Your task to perform on an android device: open a bookmark in the chrome app Image 0: 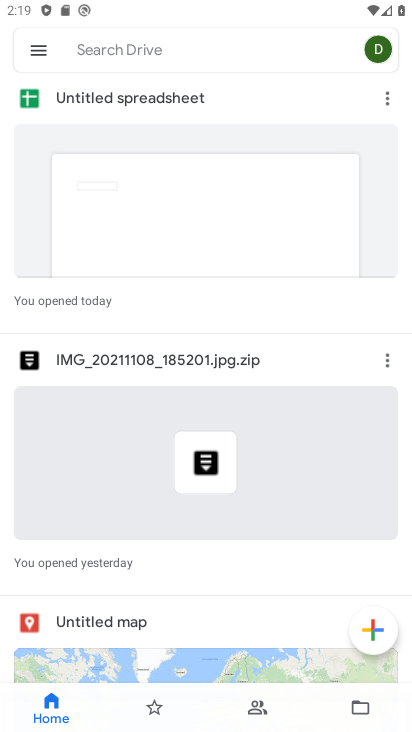
Step 0: press home button
Your task to perform on an android device: open a bookmark in the chrome app Image 1: 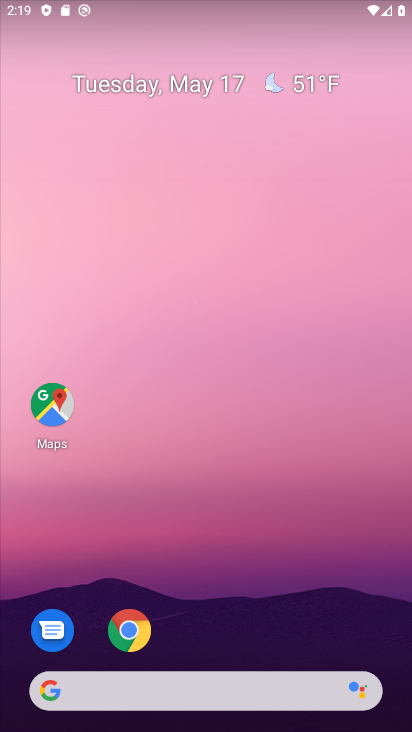
Step 1: click (330, 5)
Your task to perform on an android device: open a bookmark in the chrome app Image 2: 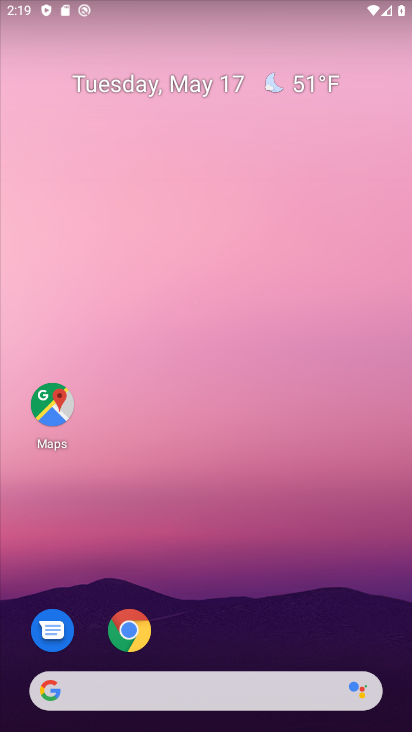
Step 2: click (132, 644)
Your task to perform on an android device: open a bookmark in the chrome app Image 3: 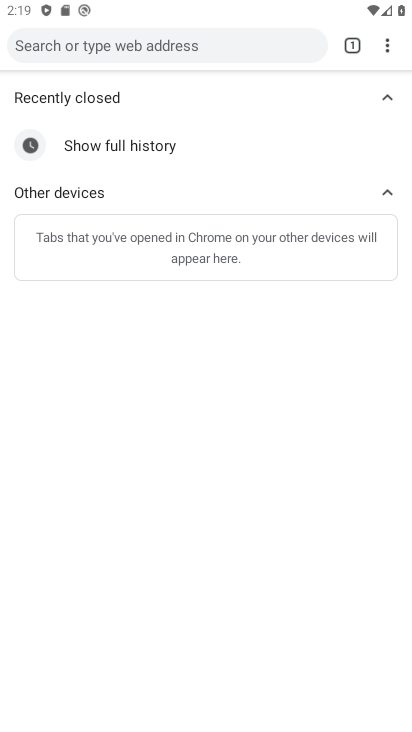
Step 3: press back button
Your task to perform on an android device: open a bookmark in the chrome app Image 4: 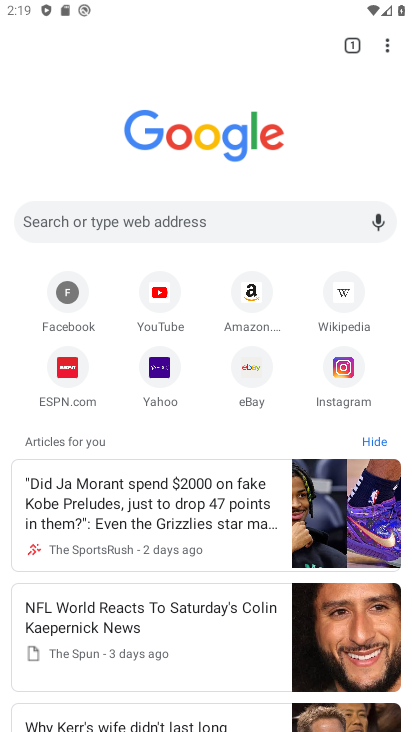
Step 4: click (203, 216)
Your task to perform on an android device: open a bookmark in the chrome app Image 5: 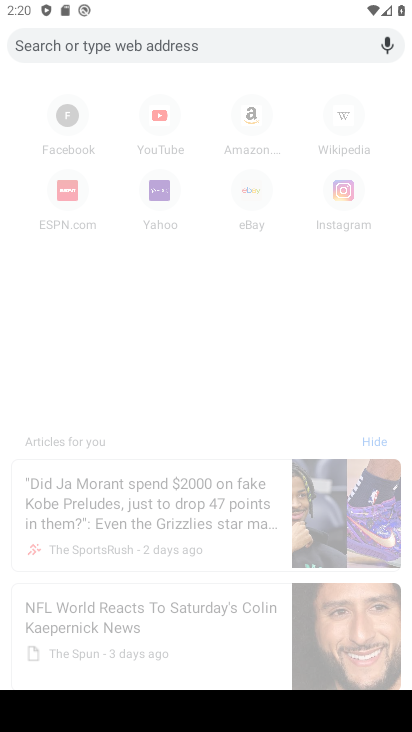
Step 5: press back button
Your task to perform on an android device: open a bookmark in the chrome app Image 6: 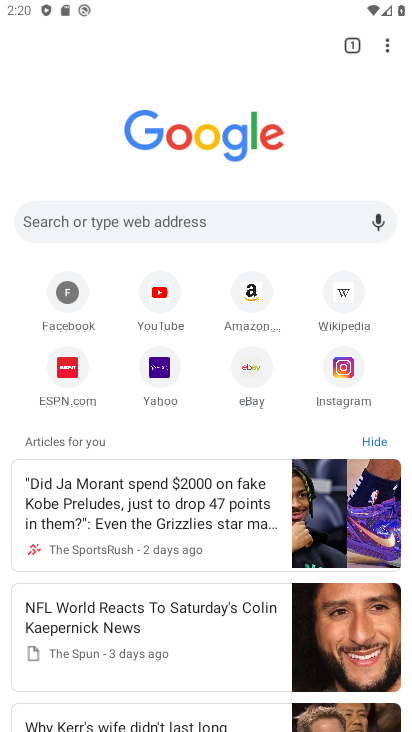
Step 6: click (387, 48)
Your task to perform on an android device: open a bookmark in the chrome app Image 7: 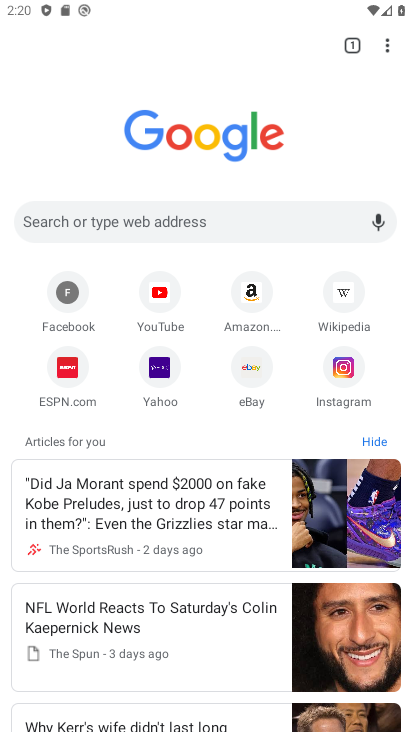
Step 7: click (384, 48)
Your task to perform on an android device: open a bookmark in the chrome app Image 8: 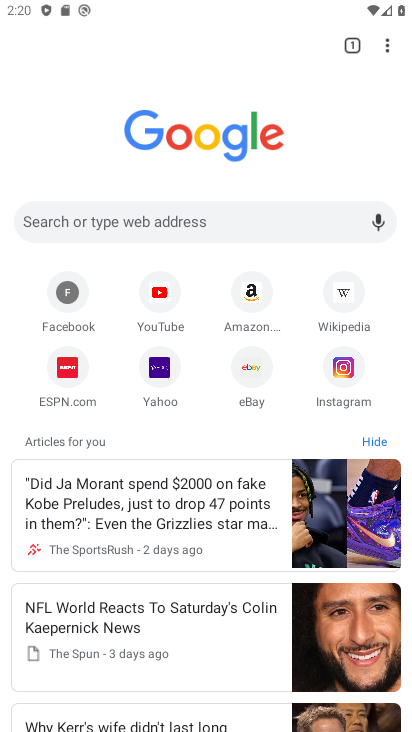
Step 8: click (391, 41)
Your task to perform on an android device: open a bookmark in the chrome app Image 9: 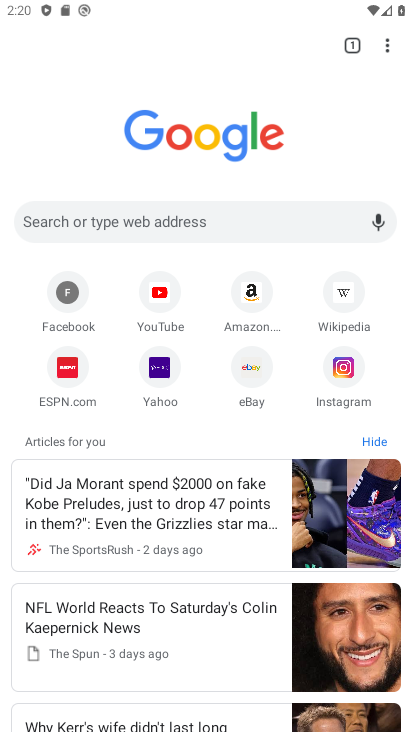
Step 9: click (384, 47)
Your task to perform on an android device: open a bookmark in the chrome app Image 10: 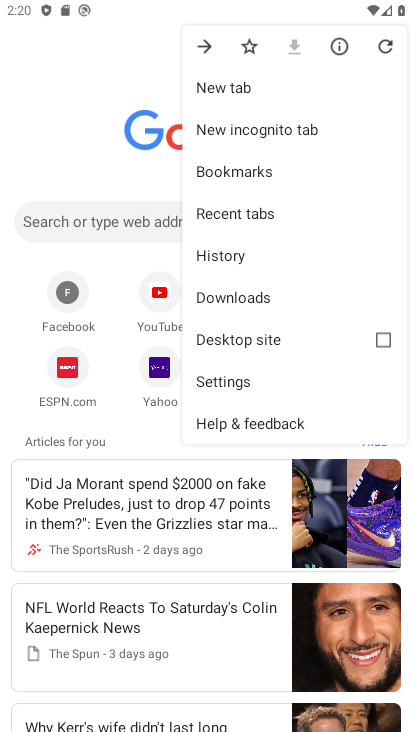
Step 10: click (245, 173)
Your task to perform on an android device: open a bookmark in the chrome app Image 11: 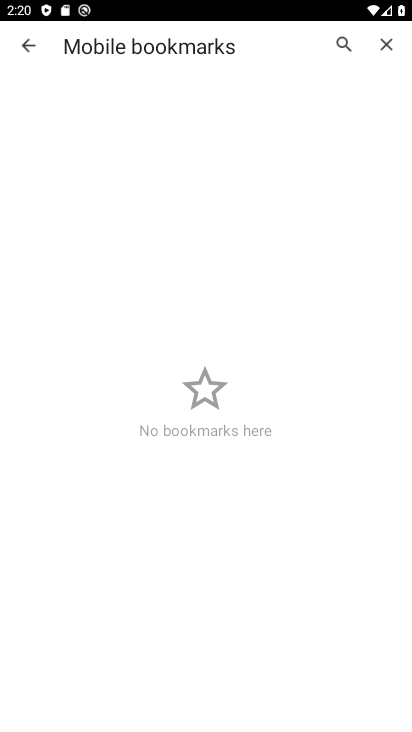
Step 11: task complete